Your task to perform on an android device: change your default location settings in chrome Image 0: 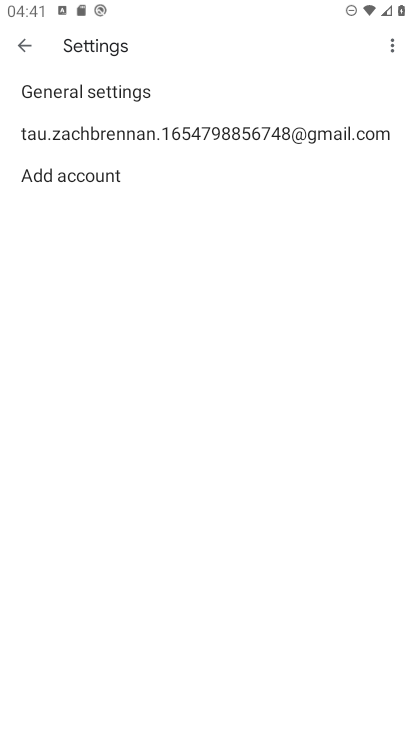
Step 0: press home button
Your task to perform on an android device: change your default location settings in chrome Image 1: 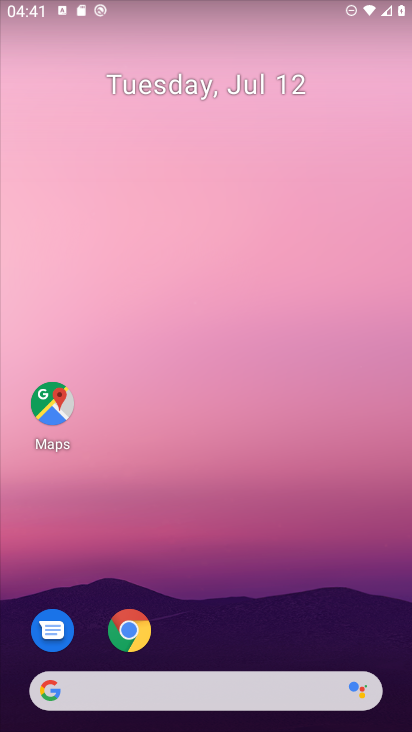
Step 1: click (126, 628)
Your task to perform on an android device: change your default location settings in chrome Image 2: 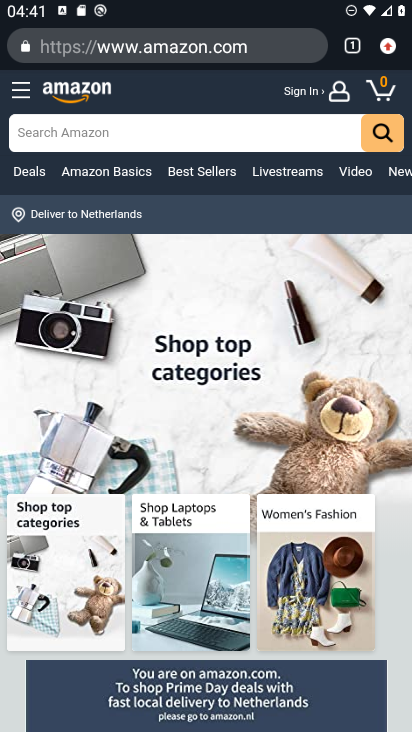
Step 2: click (387, 48)
Your task to perform on an android device: change your default location settings in chrome Image 3: 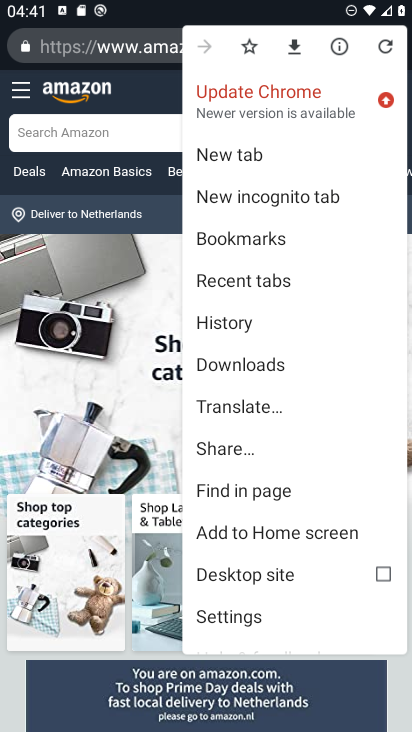
Step 3: click (230, 616)
Your task to perform on an android device: change your default location settings in chrome Image 4: 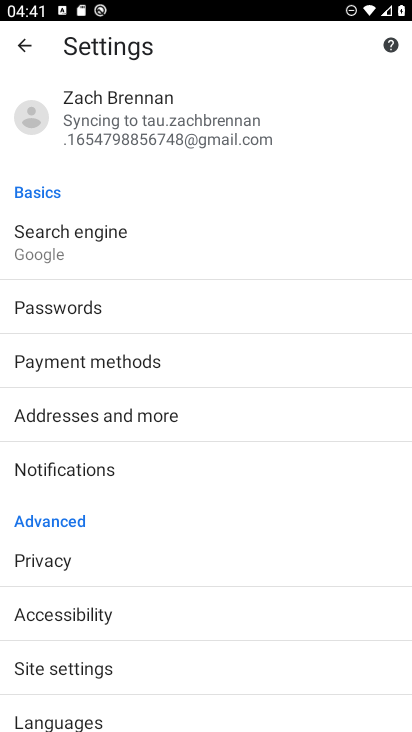
Step 4: drag from (208, 624) to (202, 203)
Your task to perform on an android device: change your default location settings in chrome Image 5: 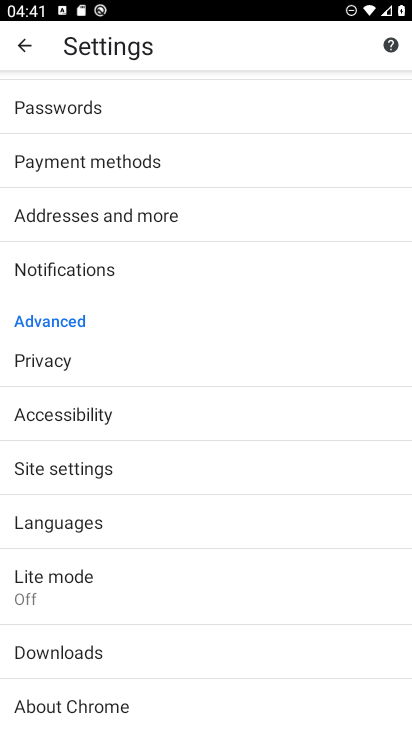
Step 5: click (65, 469)
Your task to perform on an android device: change your default location settings in chrome Image 6: 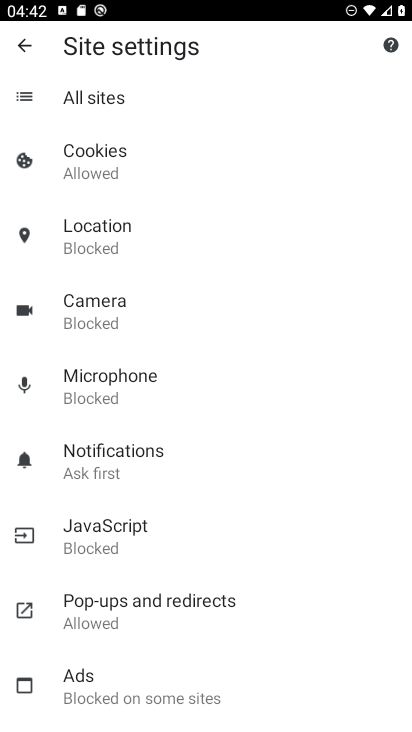
Step 6: click (85, 233)
Your task to perform on an android device: change your default location settings in chrome Image 7: 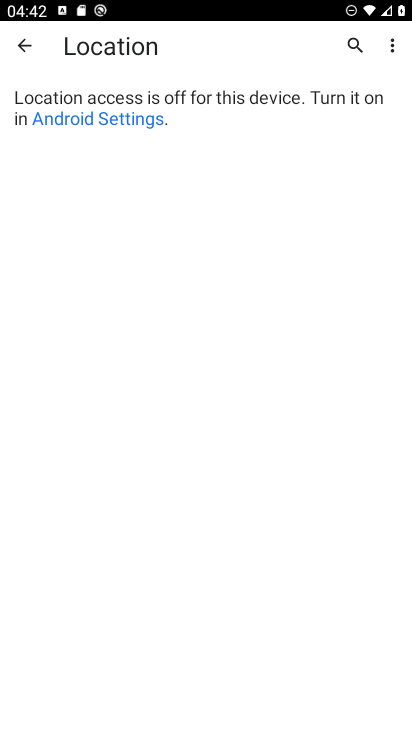
Step 7: task complete